Your task to perform on an android device: Open the calendar app, open the side menu, and click the "Day" option Image 0: 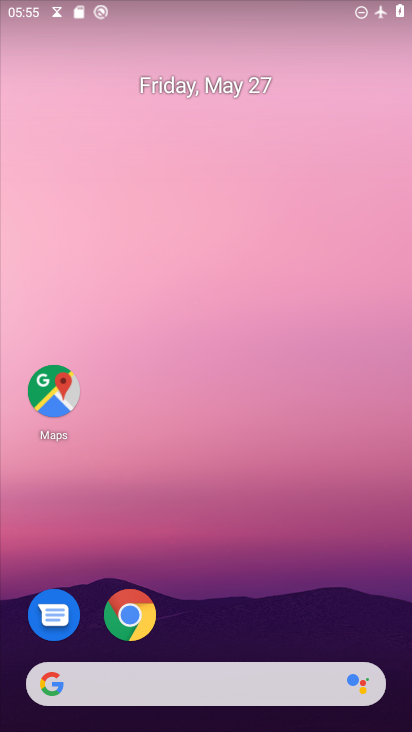
Step 0: drag from (336, 467) to (159, 0)
Your task to perform on an android device: Open the calendar app, open the side menu, and click the "Day" option Image 1: 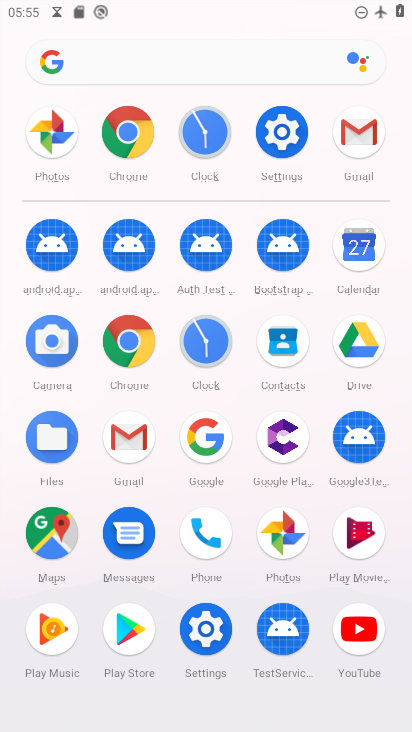
Step 1: click (360, 254)
Your task to perform on an android device: Open the calendar app, open the side menu, and click the "Day" option Image 2: 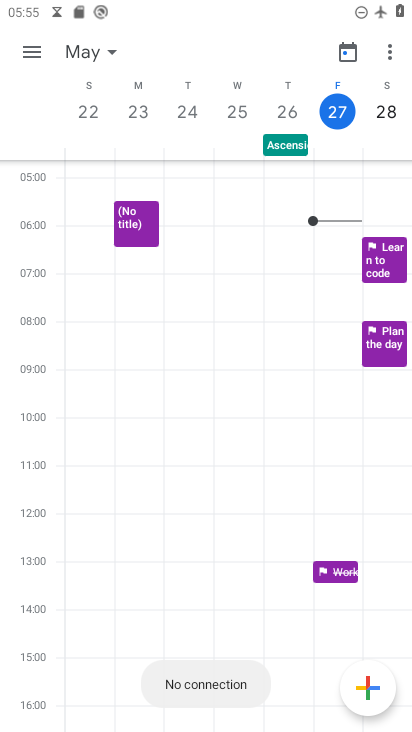
Step 2: click (28, 56)
Your task to perform on an android device: Open the calendar app, open the side menu, and click the "Day" option Image 3: 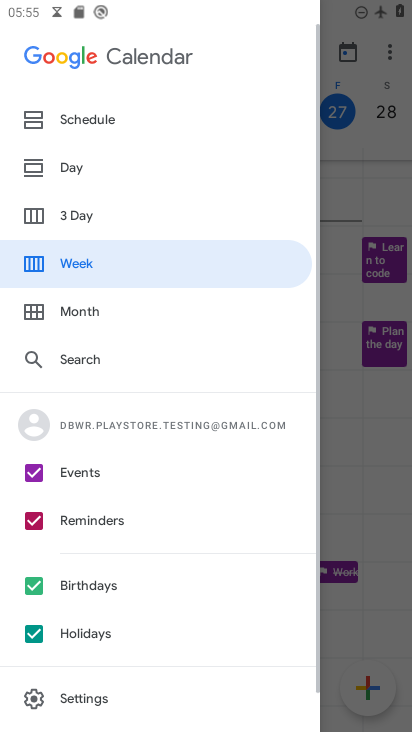
Step 3: click (87, 172)
Your task to perform on an android device: Open the calendar app, open the side menu, and click the "Day" option Image 4: 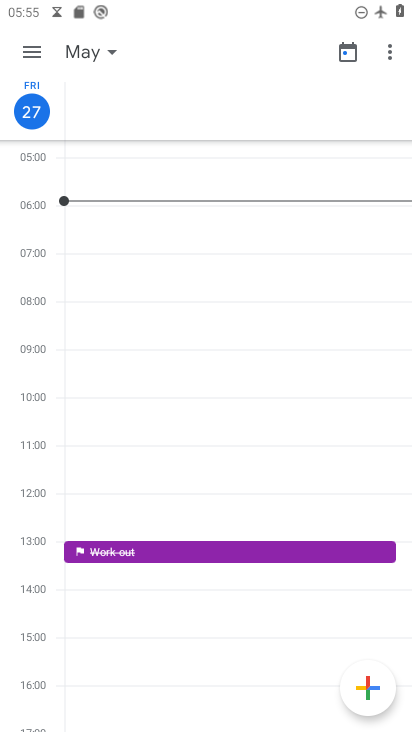
Step 4: task complete